Your task to perform on an android device: change notification settings in the gmail app Image 0: 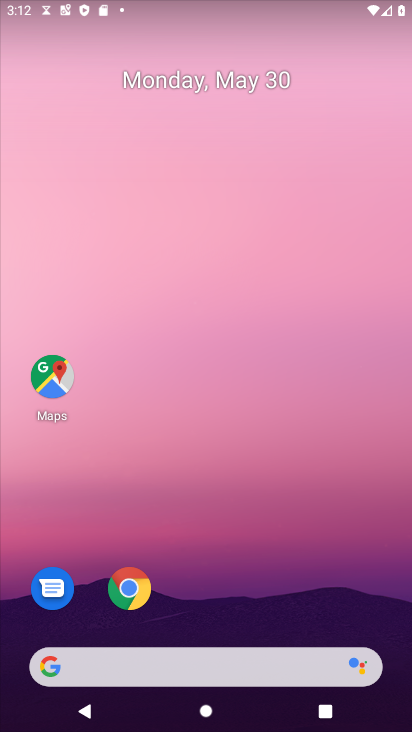
Step 0: drag from (307, 582) to (240, 18)
Your task to perform on an android device: change notification settings in the gmail app Image 1: 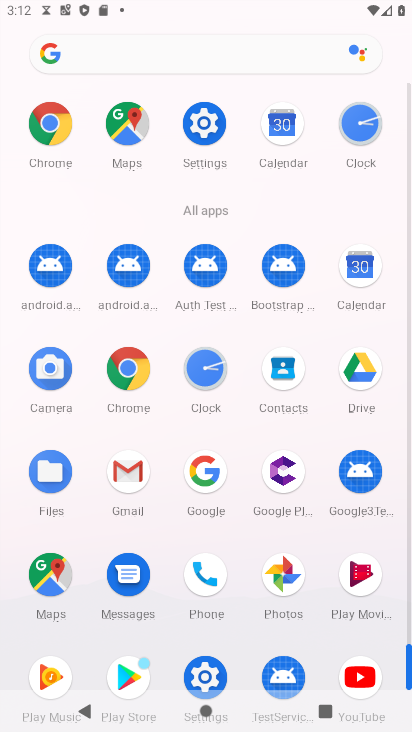
Step 1: drag from (6, 603) to (16, 313)
Your task to perform on an android device: change notification settings in the gmail app Image 2: 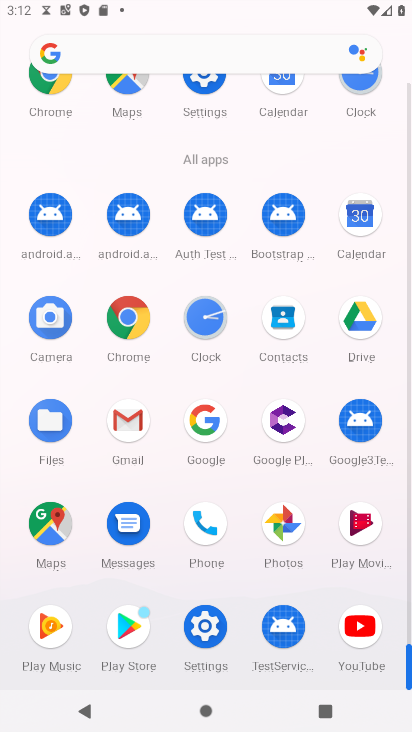
Step 2: click (130, 414)
Your task to perform on an android device: change notification settings in the gmail app Image 3: 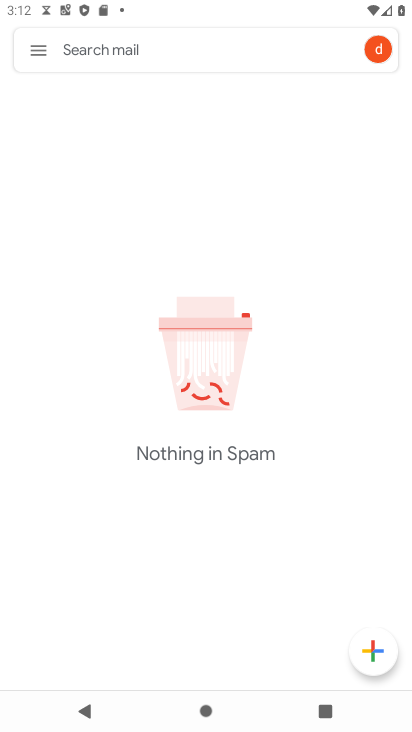
Step 3: click (43, 49)
Your task to perform on an android device: change notification settings in the gmail app Image 4: 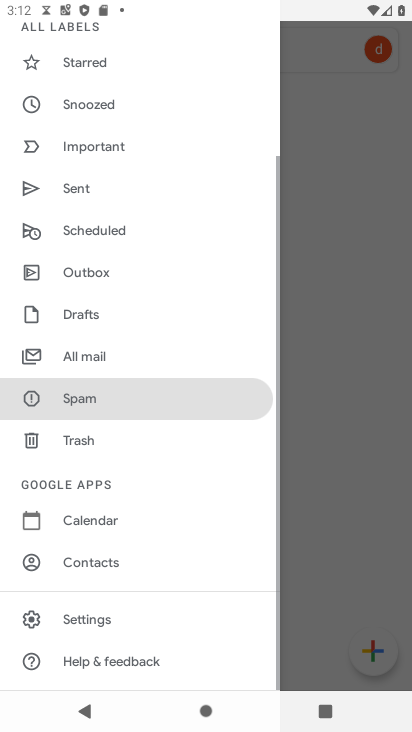
Step 4: drag from (190, 544) to (178, 163)
Your task to perform on an android device: change notification settings in the gmail app Image 5: 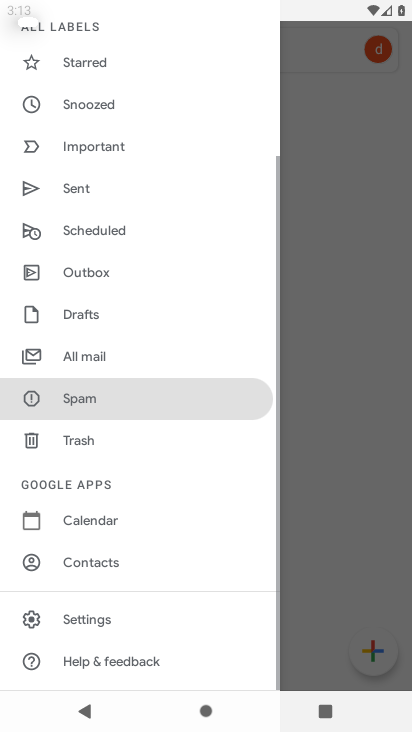
Step 5: click (68, 628)
Your task to perform on an android device: change notification settings in the gmail app Image 6: 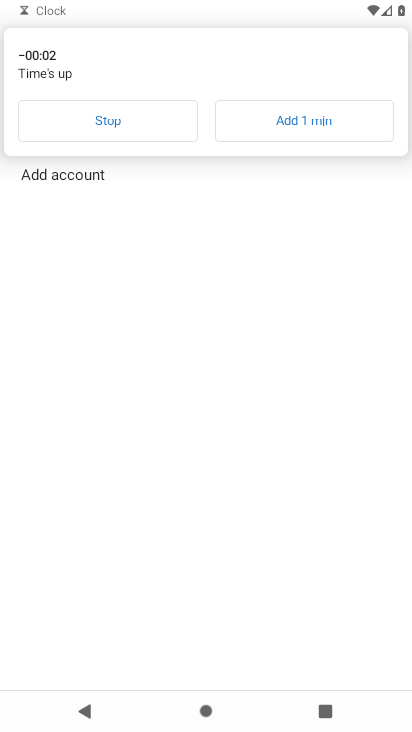
Step 6: click (134, 120)
Your task to perform on an android device: change notification settings in the gmail app Image 7: 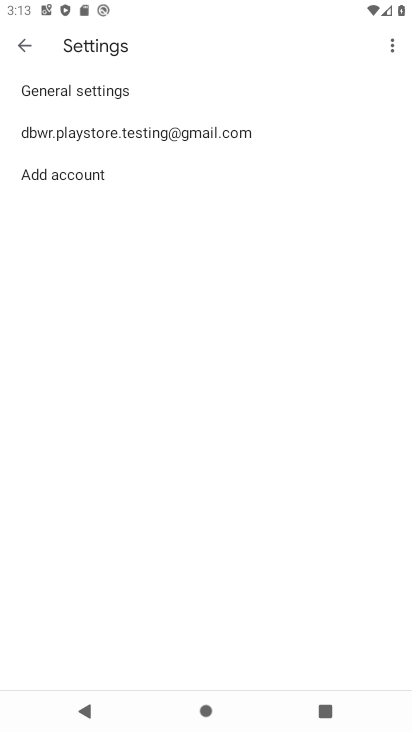
Step 7: click (176, 122)
Your task to perform on an android device: change notification settings in the gmail app Image 8: 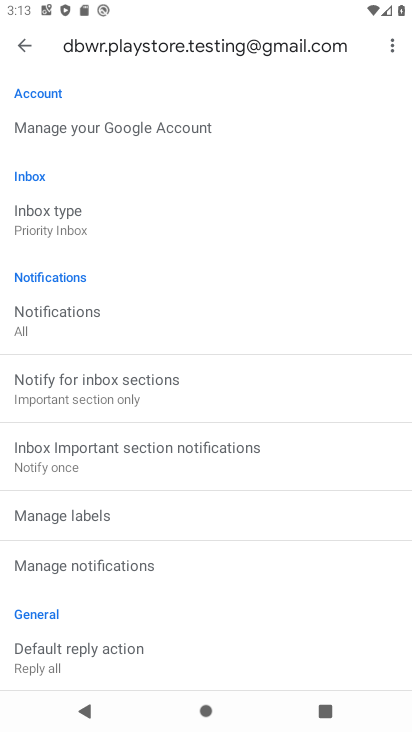
Step 8: click (127, 574)
Your task to perform on an android device: change notification settings in the gmail app Image 9: 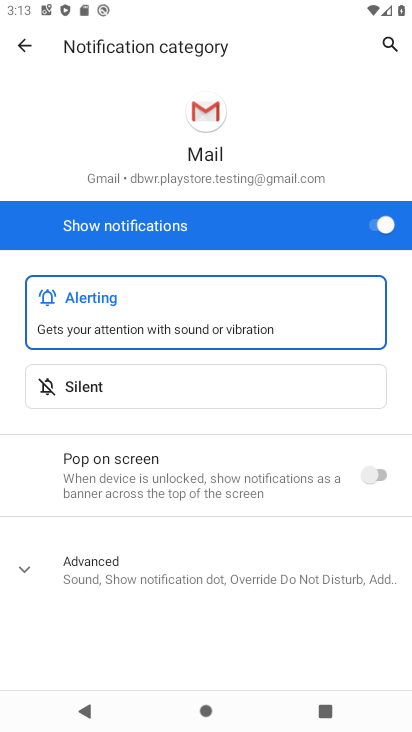
Step 9: click (370, 216)
Your task to perform on an android device: change notification settings in the gmail app Image 10: 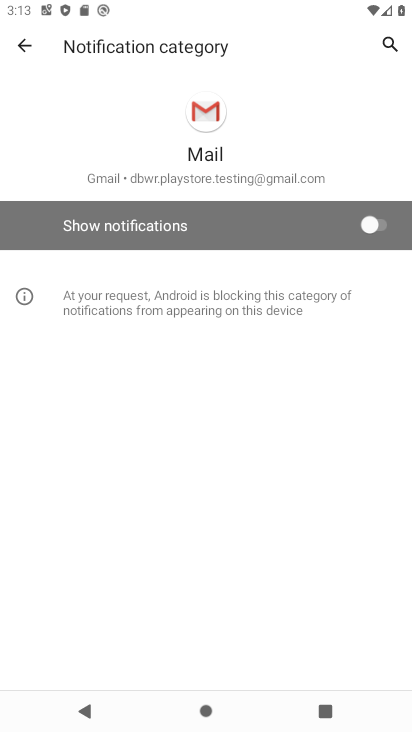
Step 10: task complete